Your task to perform on an android device: uninstall "Google Play Games" Image 0: 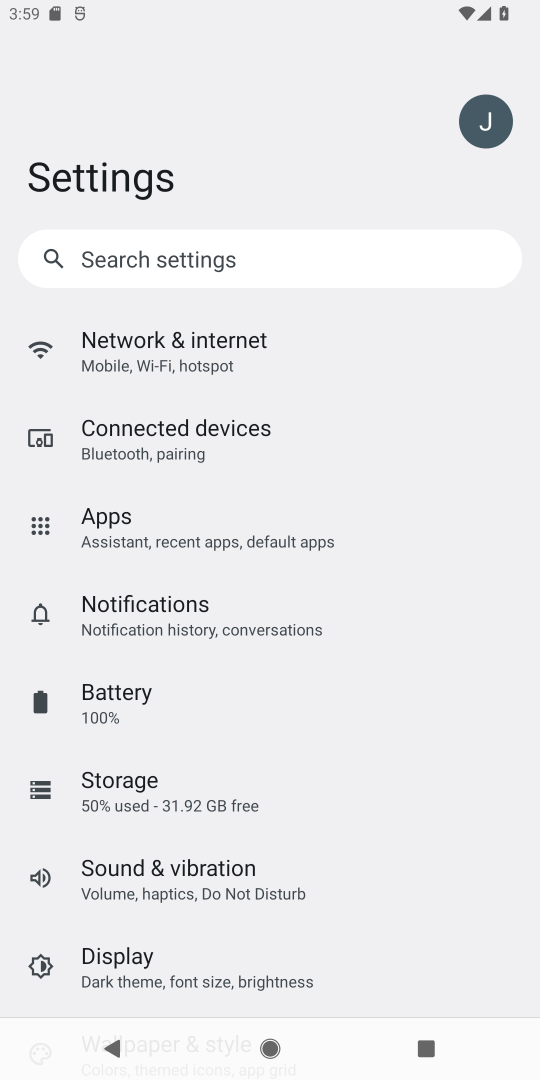
Step 0: press home button
Your task to perform on an android device: uninstall "Google Play Games" Image 1: 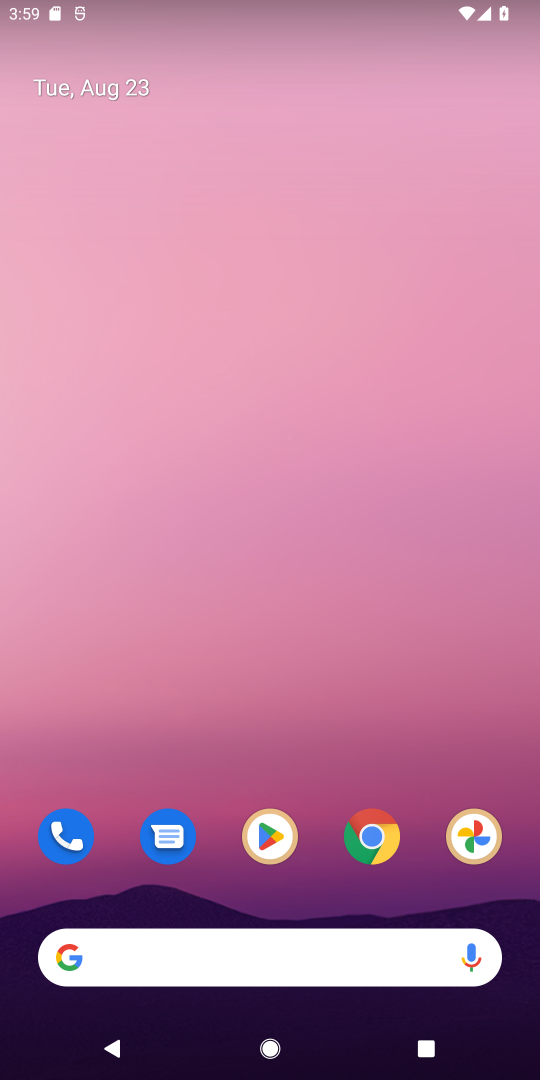
Step 1: click (275, 837)
Your task to perform on an android device: uninstall "Google Play Games" Image 2: 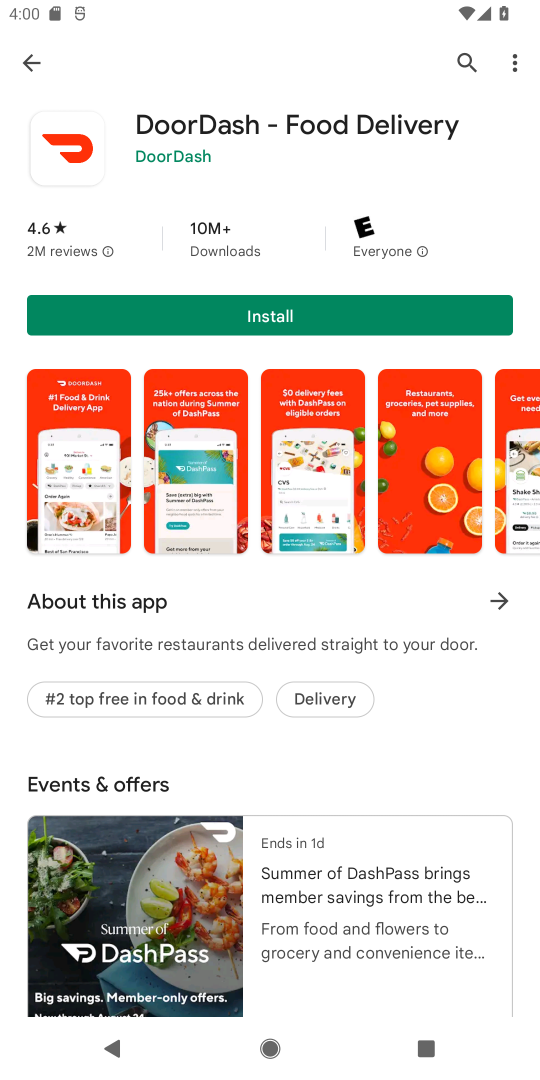
Step 2: click (455, 57)
Your task to perform on an android device: uninstall "Google Play Games" Image 3: 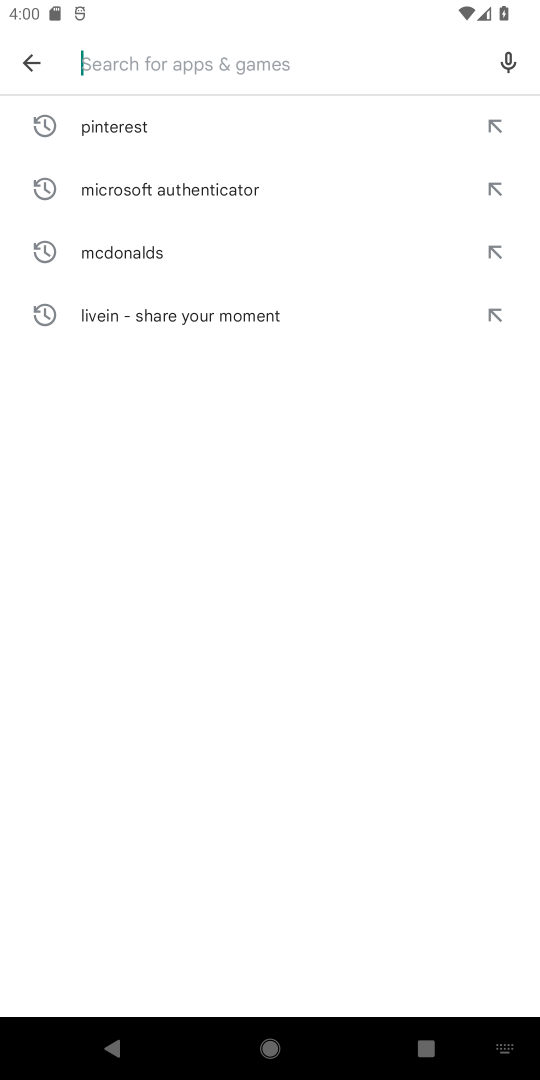
Step 3: type "Google Play Games"
Your task to perform on an android device: uninstall "Google Play Games" Image 4: 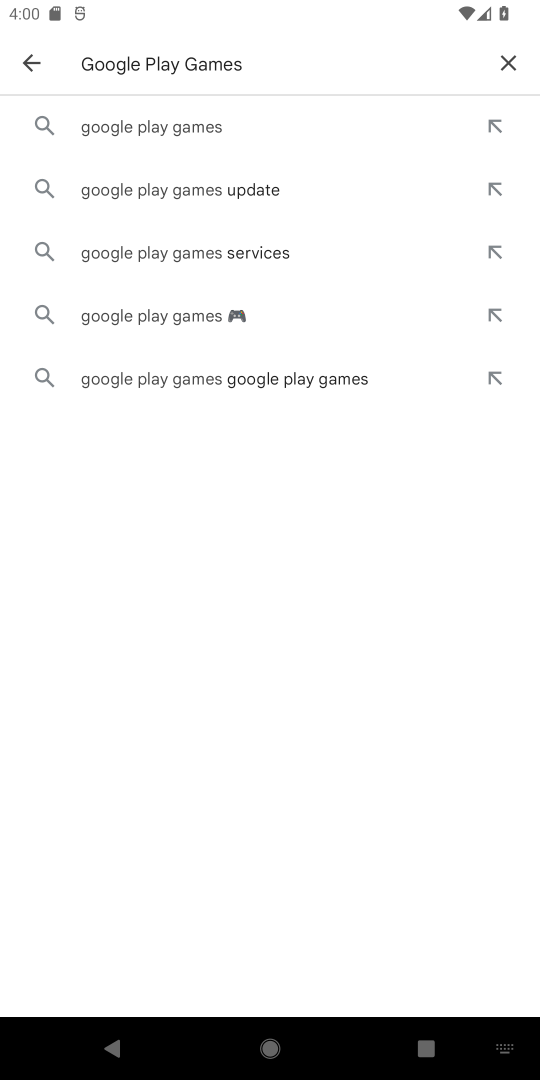
Step 4: click (177, 109)
Your task to perform on an android device: uninstall "Google Play Games" Image 5: 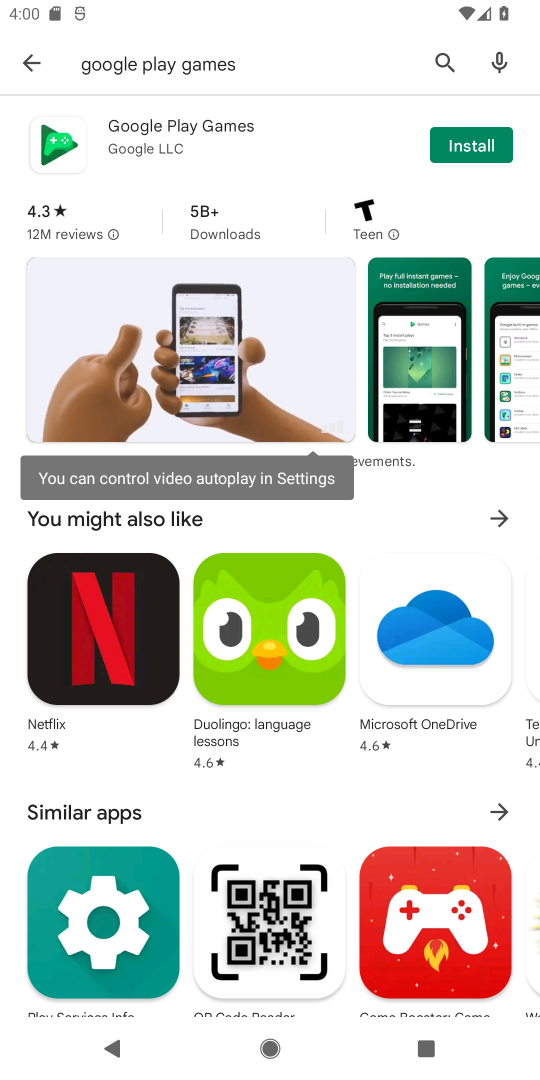
Step 5: task complete